Your task to perform on an android device: Open Chrome and go to settings Image 0: 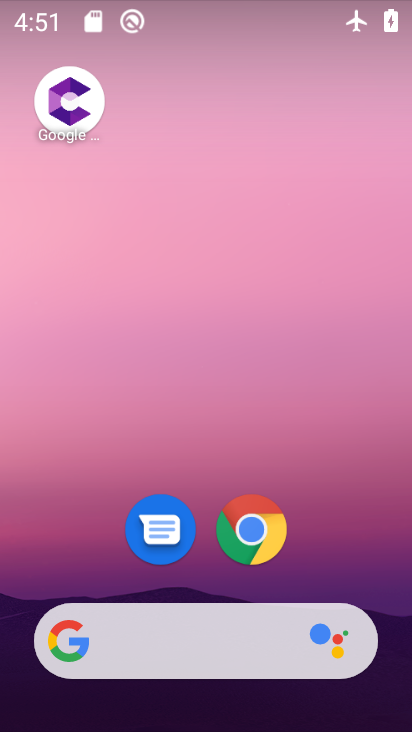
Step 0: click (244, 527)
Your task to perform on an android device: Open Chrome and go to settings Image 1: 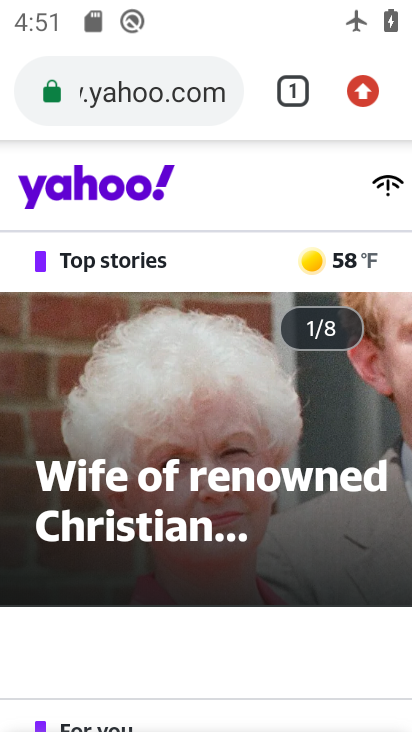
Step 1: click (364, 95)
Your task to perform on an android device: Open Chrome and go to settings Image 2: 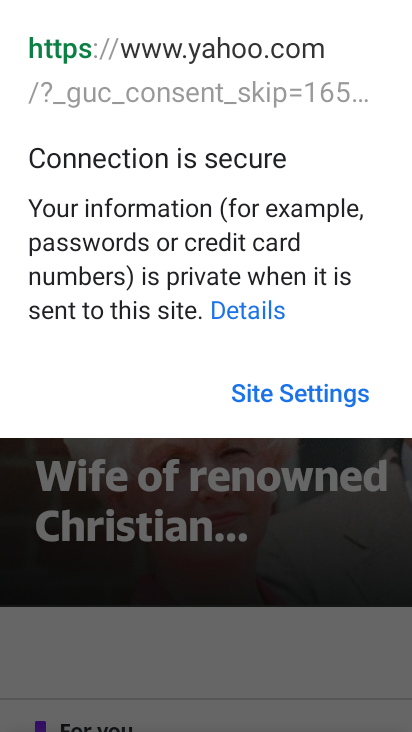
Step 2: click (281, 626)
Your task to perform on an android device: Open Chrome and go to settings Image 3: 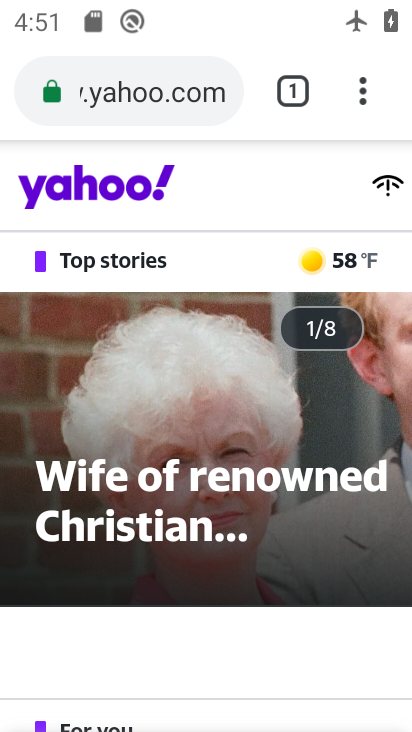
Step 3: task complete